Your task to perform on an android device: open app "File Manager" (install if not already installed) Image 0: 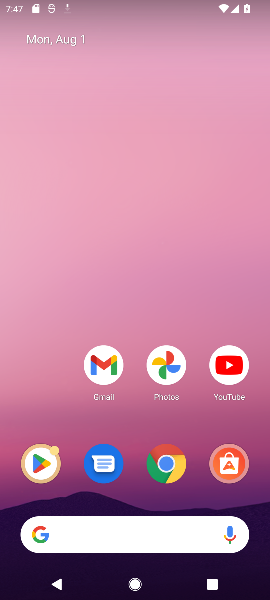
Step 0: click (50, 449)
Your task to perform on an android device: open app "File Manager" (install if not already installed) Image 1: 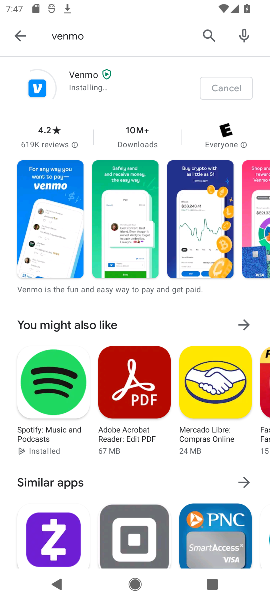
Step 1: click (194, 40)
Your task to perform on an android device: open app "File Manager" (install if not already installed) Image 2: 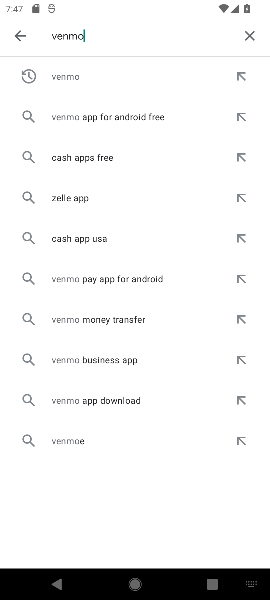
Step 2: click (248, 40)
Your task to perform on an android device: open app "File Manager" (install if not already installed) Image 3: 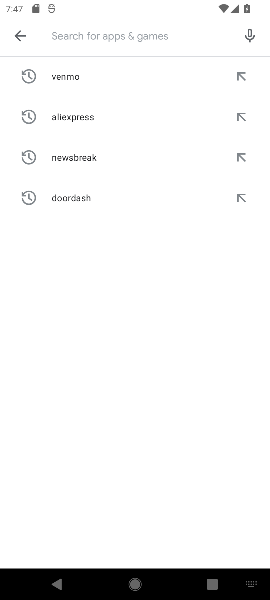
Step 3: type "file manager"
Your task to perform on an android device: open app "File Manager" (install if not already installed) Image 4: 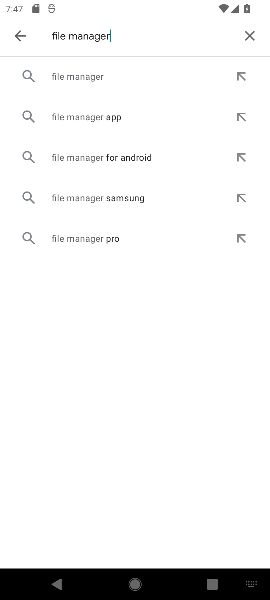
Step 4: click (191, 77)
Your task to perform on an android device: open app "File Manager" (install if not already installed) Image 5: 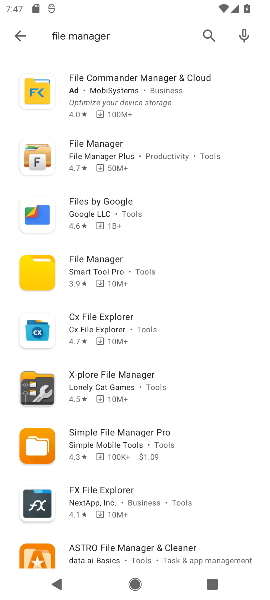
Step 5: click (191, 77)
Your task to perform on an android device: open app "File Manager" (install if not already installed) Image 6: 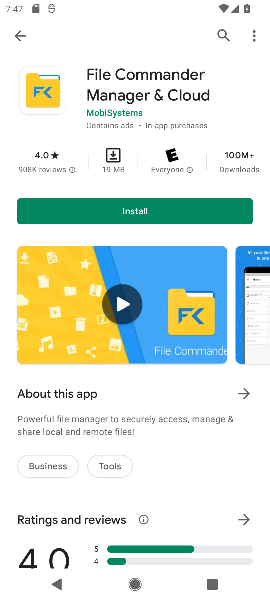
Step 6: click (202, 217)
Your task to perform on an android device: open app "File Manager" (install if not already installed) Image 7: 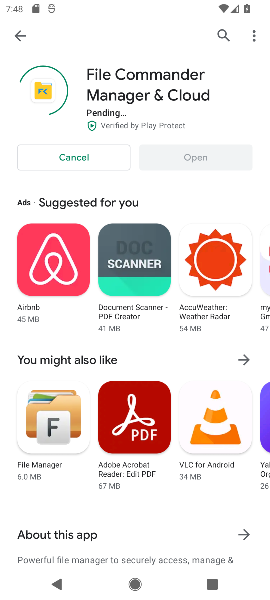
Step 7: task complete